Your task to perform on an android device: Go to Google maps Image 0: 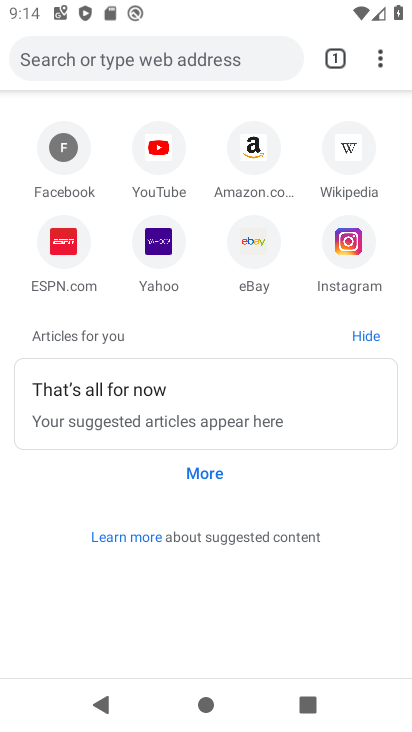
Step 0: press home button
Your task to perform on an android device: Go to Google maps Image 1: 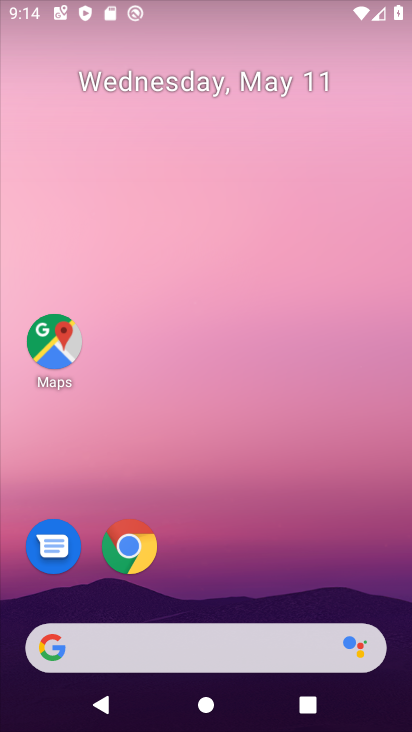
Step 1: drag from (399, 623) to (238, 37)
Your task to perform on an android device: Go to Google maps Image 2: 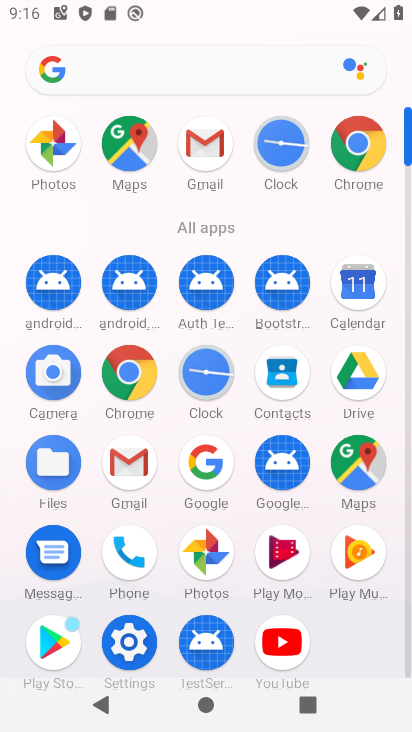
Step 2: click (347, 476)
Your task to perform on an android device: Go to Google maps Image 3: 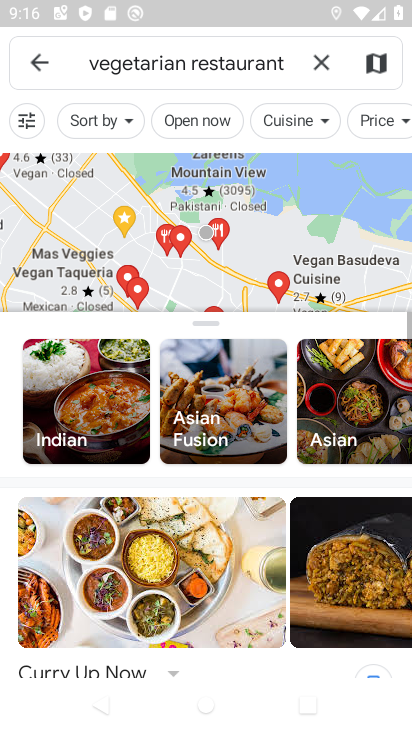
Step 3: click (314, 72)
Your task to perform on an android device: Go to Google maps Image 4: 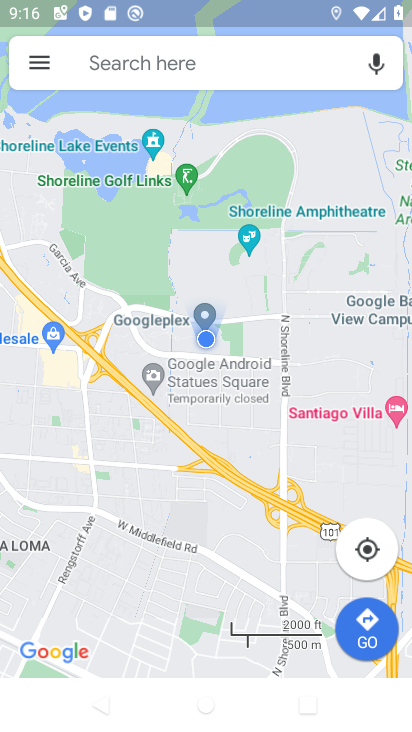
Step 4: task complete